Your task to perform on an android device: Toggle the flashlight Image 0: 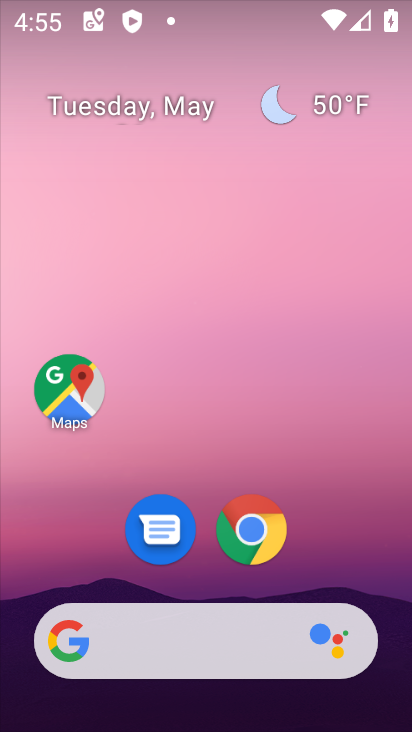
Step 0: drag from (300, 520) to (248, 25)
Your task to perform on an android device: Toggle the flashlight Image 1: 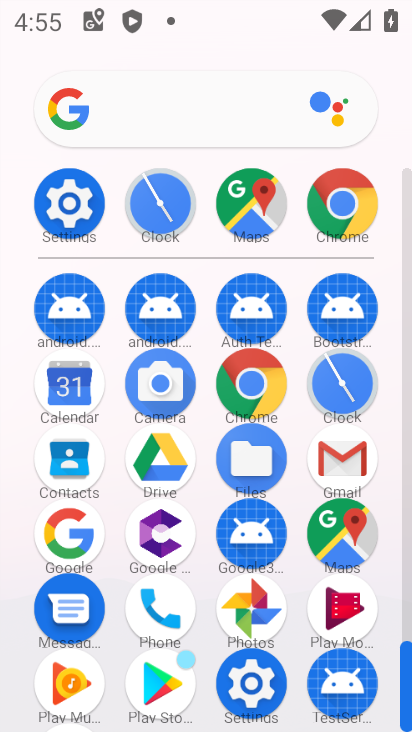
Step 1: click (66, 202)
Your task to perform on an android device: Toggle the flashlight Image 2: 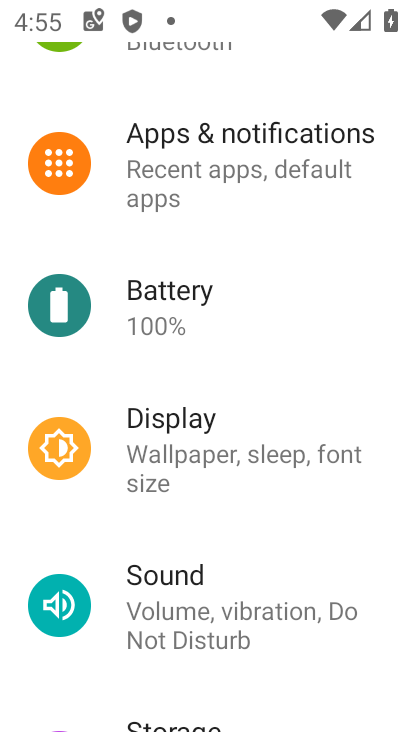
Step 2: drag from (231, 212) to (276, 615)
Your task to perform on an android device: Toggle the flashlight Image 3: 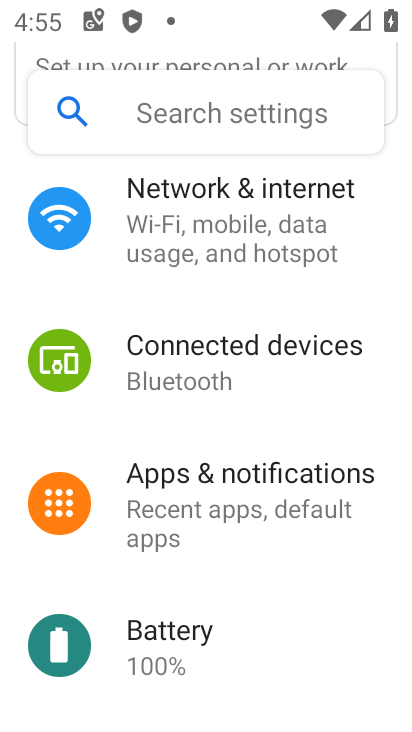
Step 3: drag from (315, 250) to (306, 632)
Your task to perform on an android device: Toggle the flashlight Image 4: 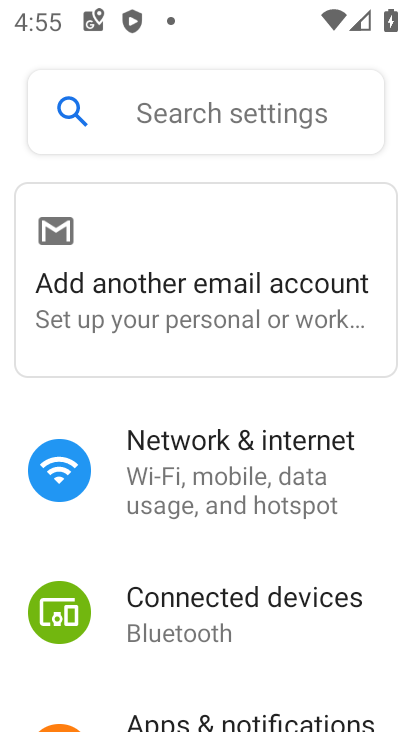
Step 4: click (263, 489)
Your task to perform on an android device: Toggle the flashlight Image 5: 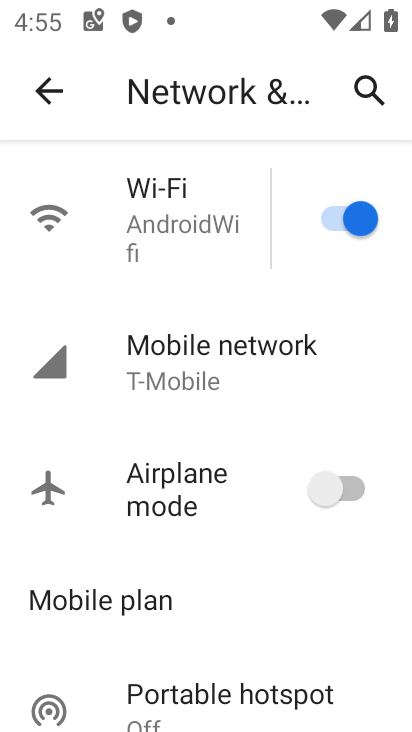
Step 5: drag from (222, 629) to (217, 194)
Your task to perform on an android device: Toggle the flashlight Image 6: 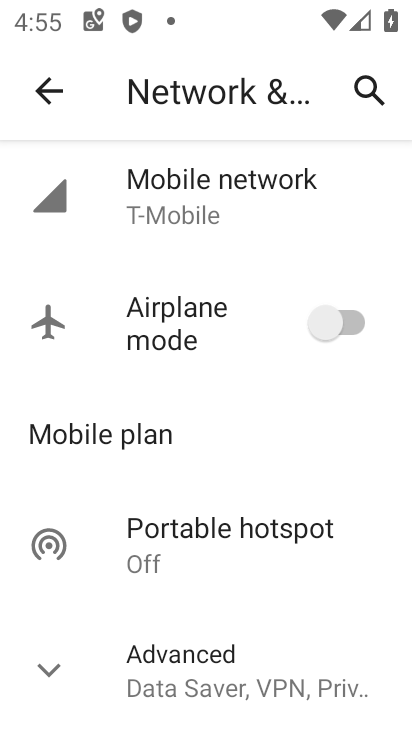
Step 6: click (35, 661)
Your task to perform on an android device: Toggle the flashlight Image 7: 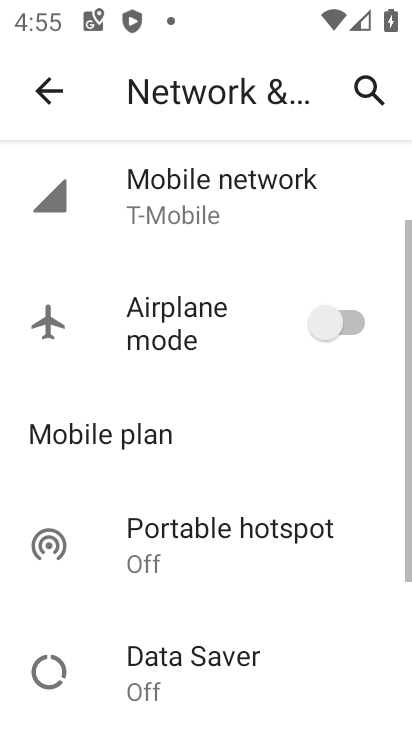
Step 7: task complete